Your task to perform on an android device: uninstall "Adobe Express: Graphic Design" Image 0: 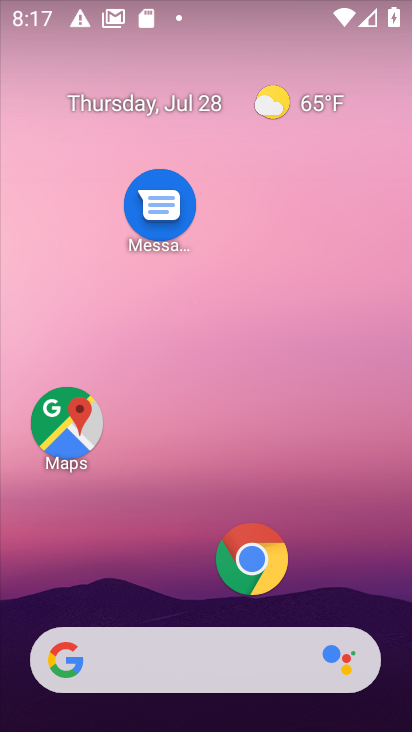
Step 0: drag from (191, 604) to (221, 195)
Your task to perform on an android device: uninstall "Adobe Express: Graphic Design" Image 1: 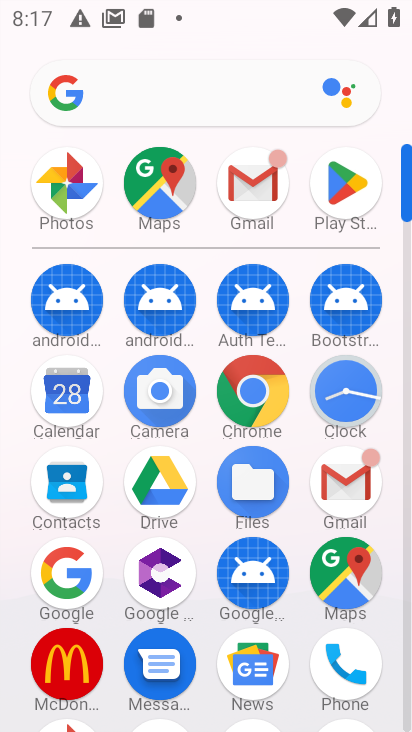
Step 1: click (330, 170)
Your task to perform on an android device: uninstall "Adobe Express: Graphic Design" Image 2: 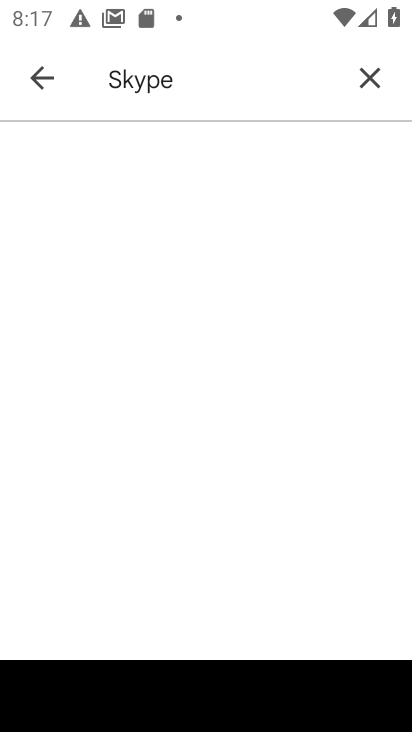
Step 2: click (280, 200)
Your task to perform on an android device: uninstall "Adobe Express: Graphic Design" Image 3: 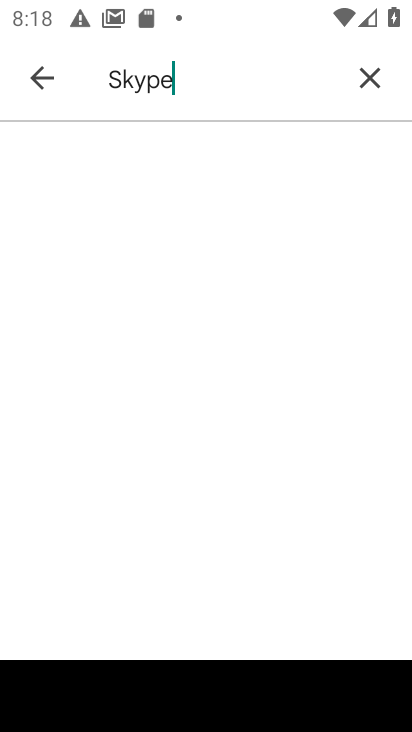
Step 3: task complete